Your task to perform on an android device: open app "Messenger Lite" (install if not already installed) and enter user name: "cataclysmic@outlook.com" and password: "victoriously" Image 0: 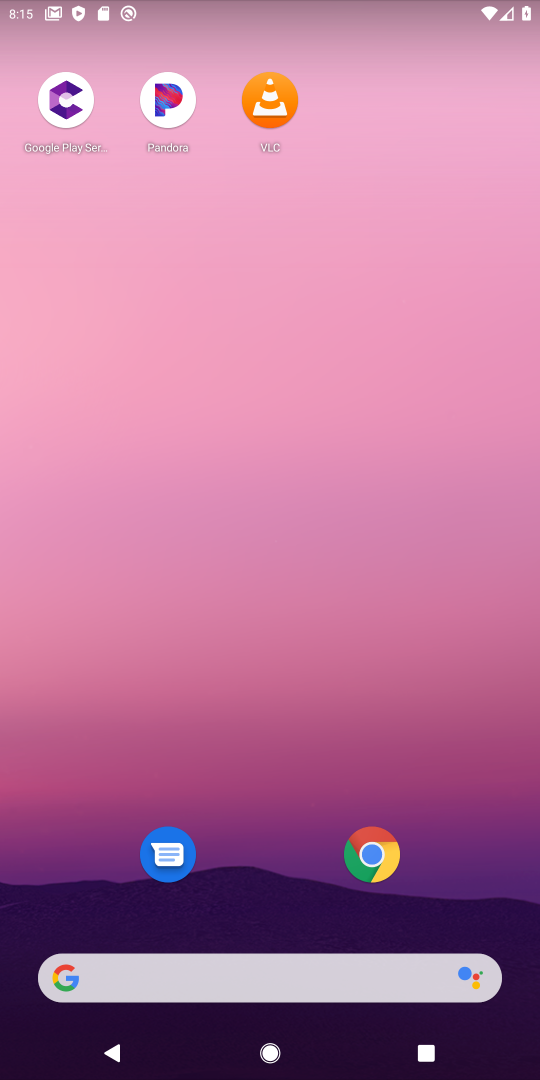
Step 0: drag from (275, 913) to (310, 103)
Your task to perform on an android device: open app "Messenger Lite" (install if not already installed) and enter user name: "cataclysmic@outlook.com" and password: "victoriously" Image 1: 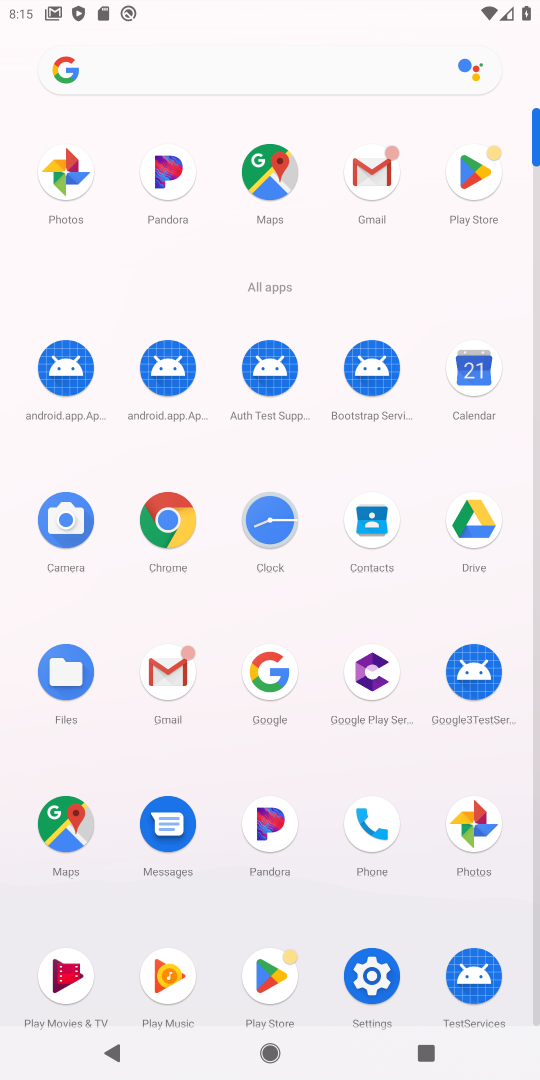
Step 1: click (452, 180)
Your task to perform on an android device: open app "Messenger Lite" (install if not already installed) and enter user name: "cataclysmic@outlook.com" and password: "victoriously" Image 2: 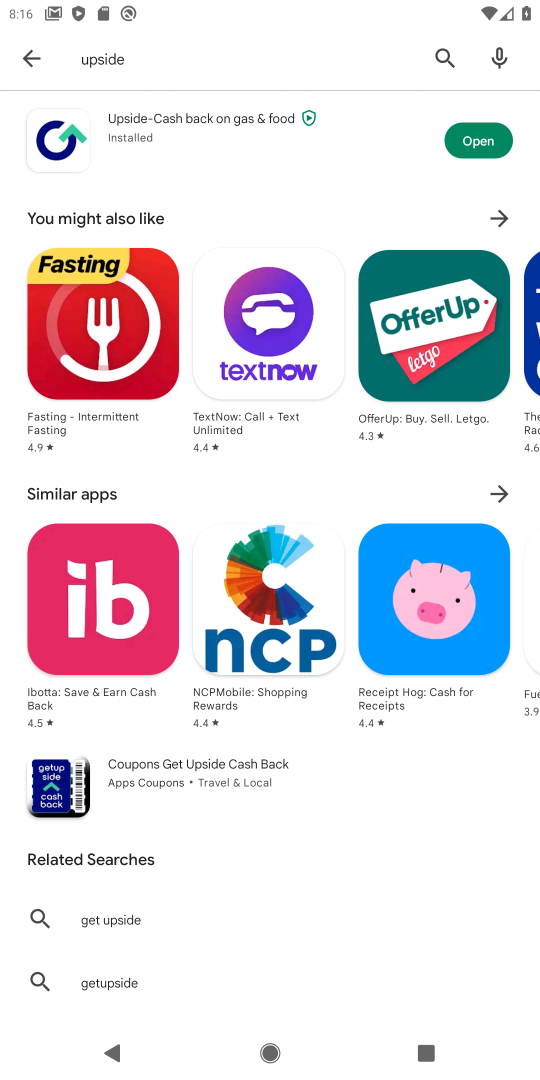
Step 2: click (458, 60)
Your task to perform on an android device: open app "Messenger Lite" (install if not already installed) and enter user name: "cataclysmic@outlook.com" and password: "victoriously" Image 3: 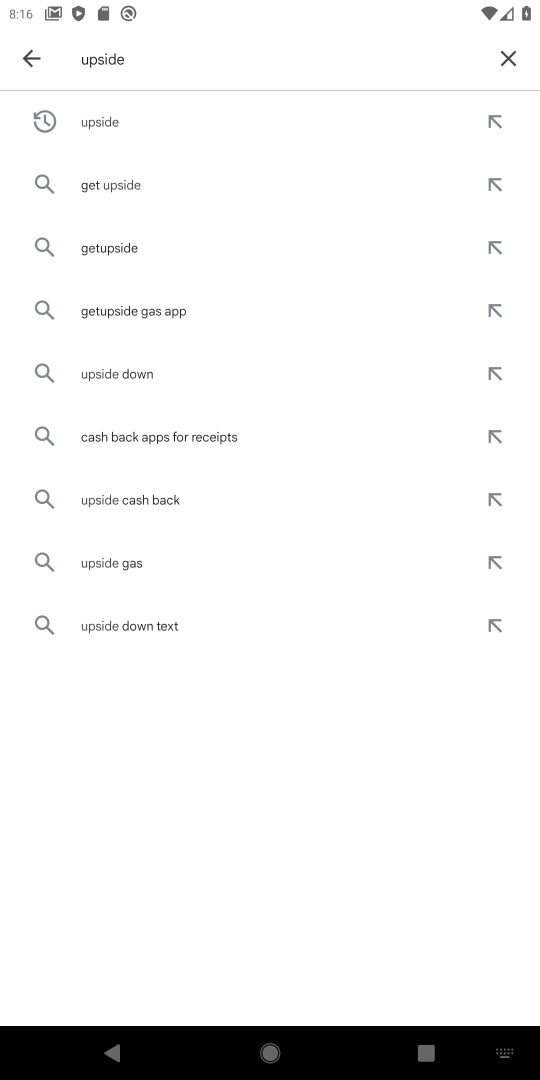
Step 3: click (441, 70)
Your task to perform on an android device: open app "Messenger Lite" (install if not already installed) and enter user name: "cataclysmic@outlook.com" and password: "victoriously" Image 4: 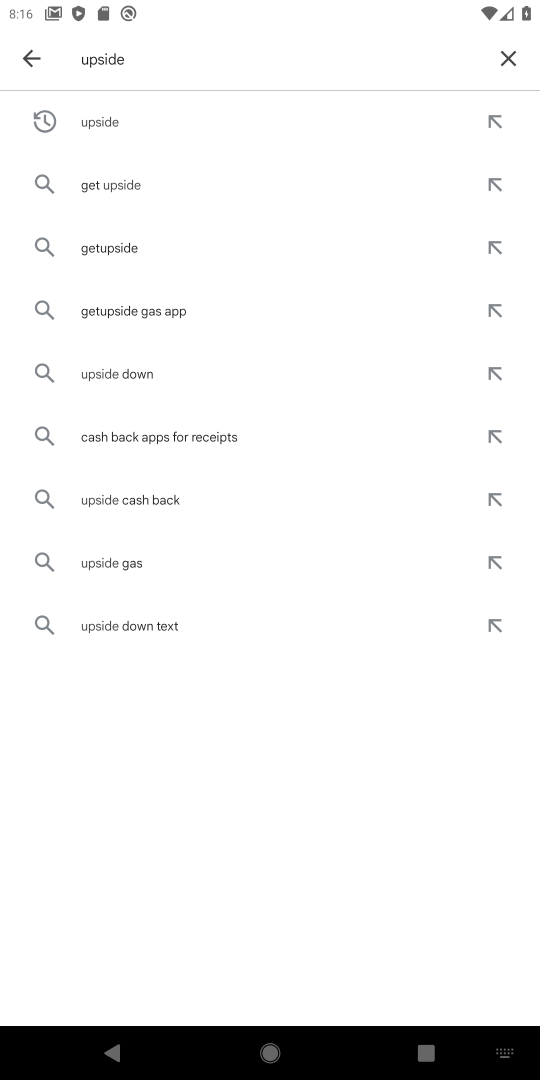
Step 4: task complete